Your task to perform on an android device: turn on data saver in the chrome app Image 0: 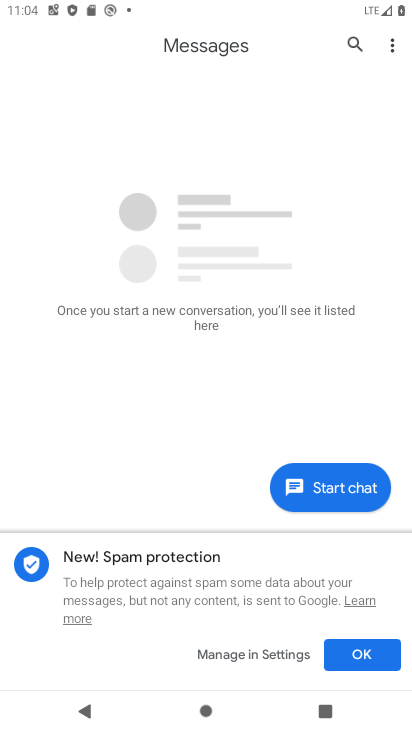
Step 0: press home button
Your task to perform on an android device: turn on data saver in the chrome app Image 1: 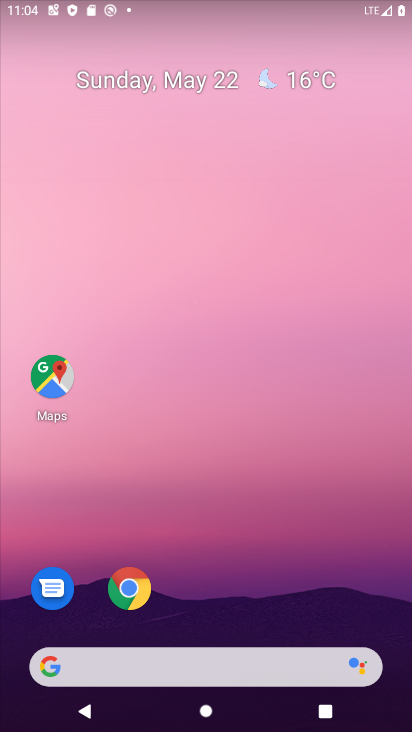
Step 1: click (126, 590)
Your task to perform on an android device: turn on data saver in the chrome app Image 2: 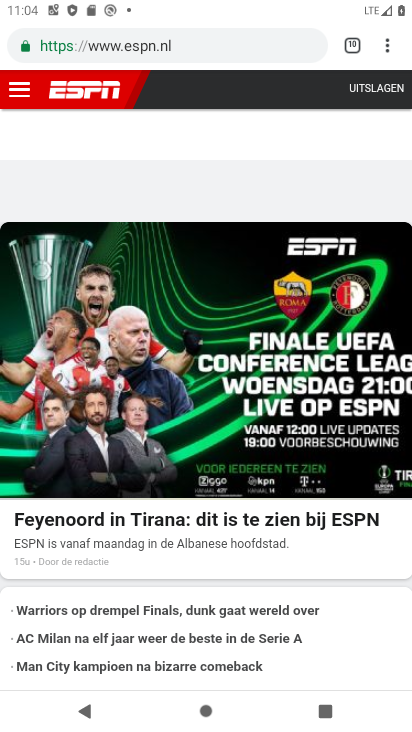
Step 2: click (380, 36)
Your task to perform on an android device: turn on data saver in the chrome app Image 3: 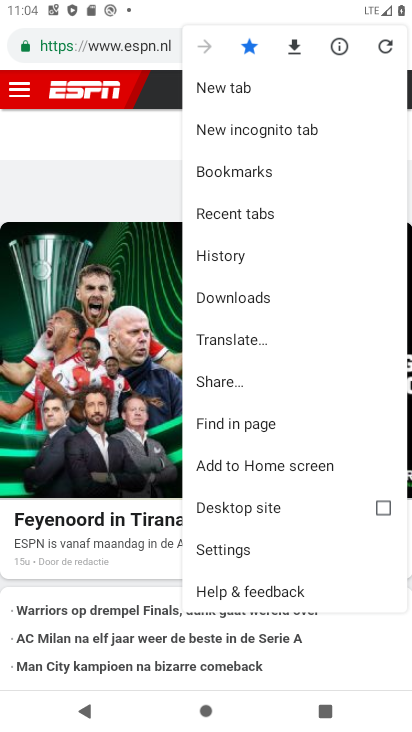
Step 3: click (254, 543)
Your task to perform on an android device: turn on data saver in the chrome app Image 4: 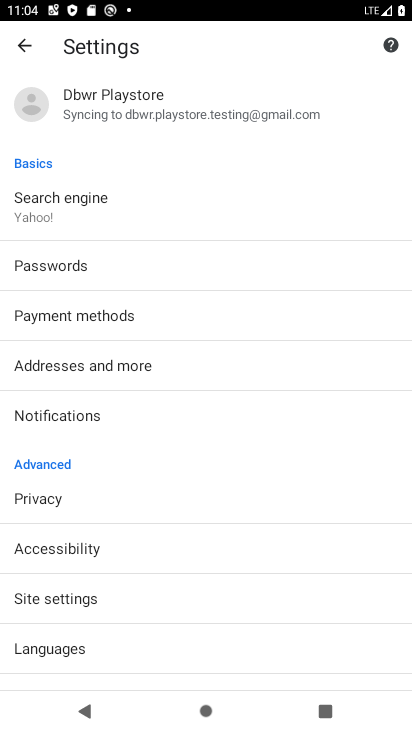
Step 4: click (139, 601)
Your task to perform on an android device: turn on data saver in the chrome app Image 5: 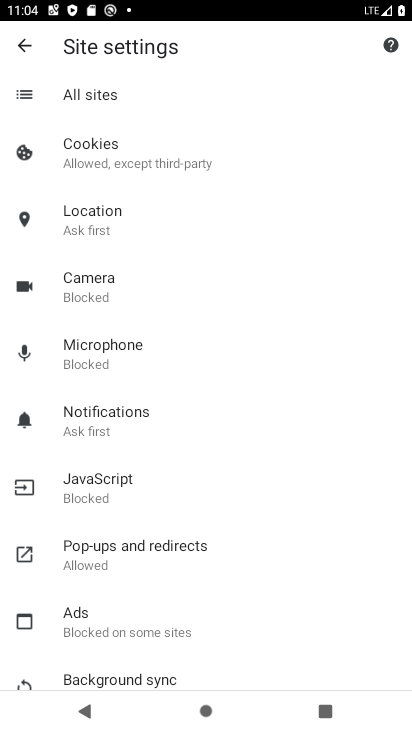
Step 5: drag from (124, 628) to (142, 228)
Your task to perform on an android device: turn on data saver in the chrome app Image 6: 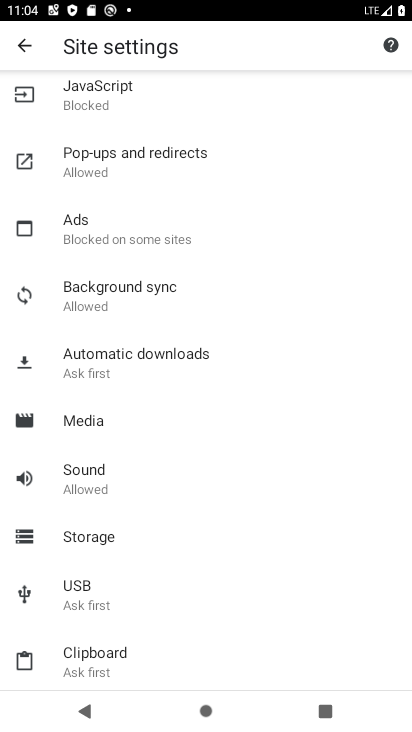
Step 6: press back button
Your task to perform on an android device: turn on data saver in the chrome app Image 7: 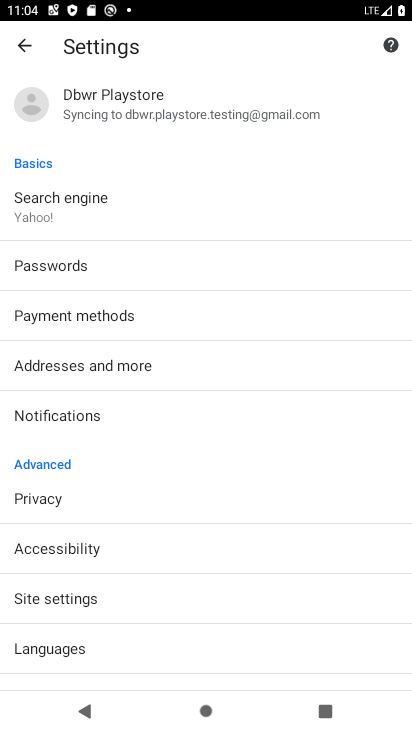
Step 7: drag from (83, 631) to (109, 406)
Your task to perform on an android device: turn on data saver in the chrome app Image 8: 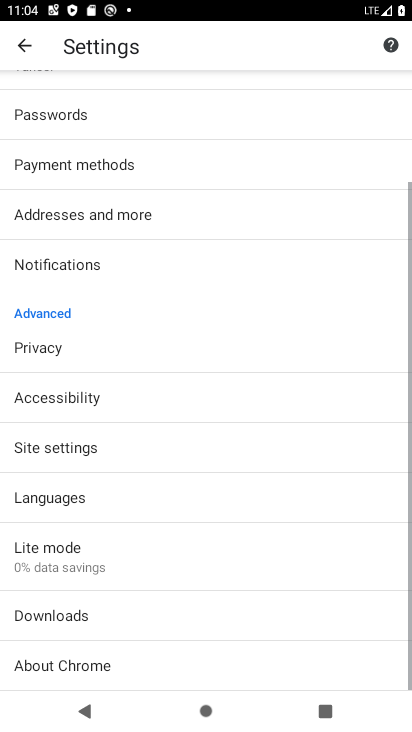
Step 8: click (76, 551)
Your task to perform on an android device: turn on data saver in the chrome app Image 9: 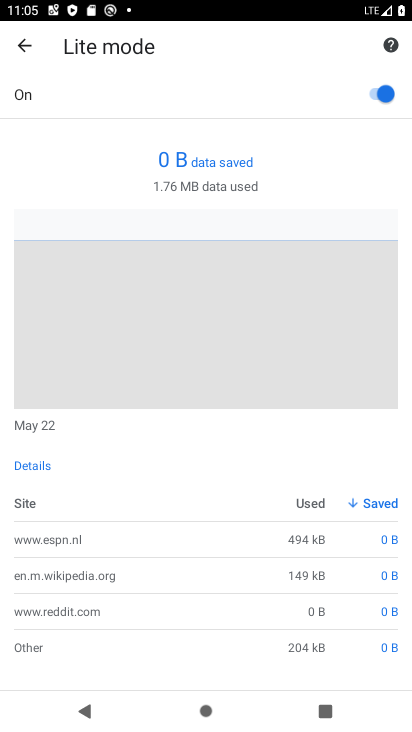
Step 9: task complete